Your task to perform on an android device: add a label to a message in the gmail app Image 0: 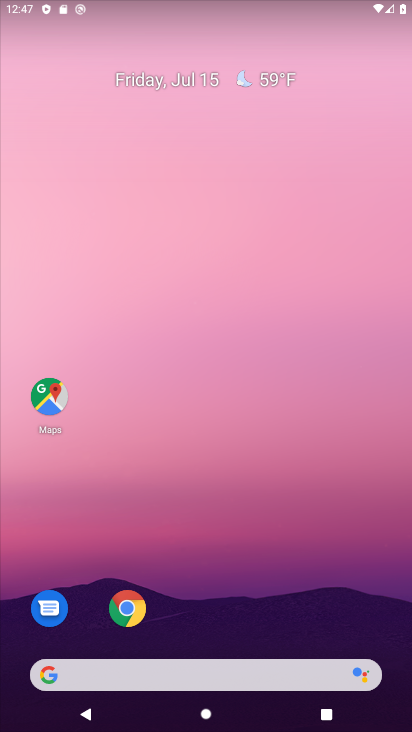
Step 0: drag from (198, 676) to (170, 113)
Your task to perform on an android device: add a label to a message in the gmail app Image 1: 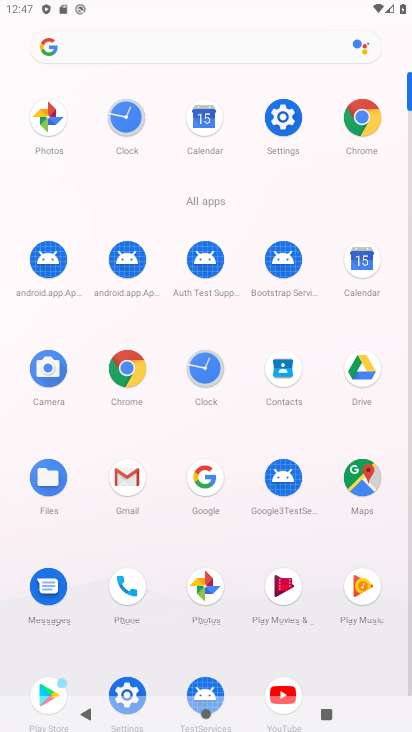
Step 1: click (130, 478)
Your task to perform on an android device: add a label to a message in the gmail app Image 2: 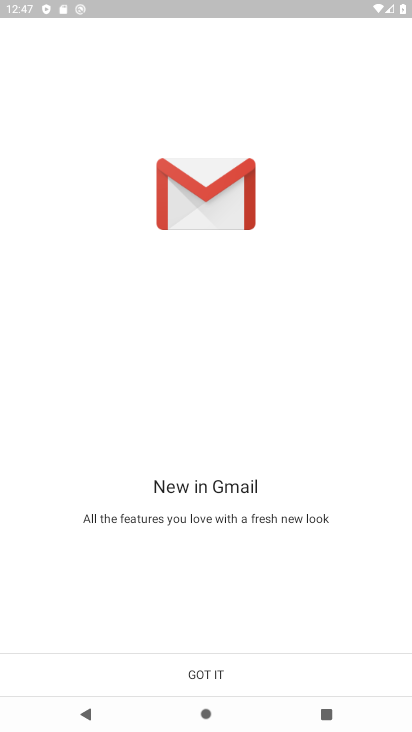
Step 2: click (206, 683)
Your task to perform on an android device: add a label to a message in the gmail app Image 3: 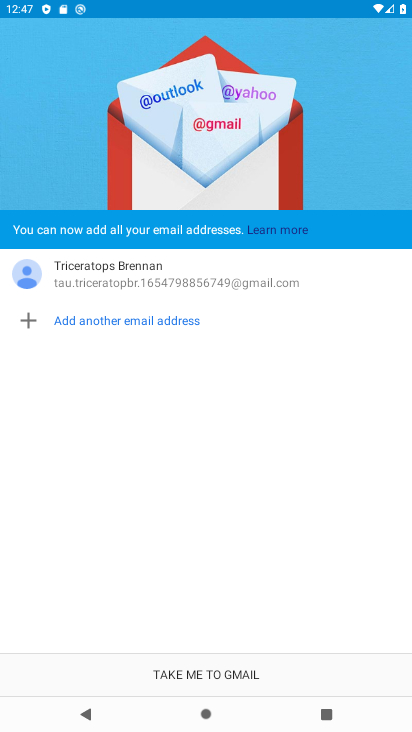
Step 3: click (171, 670)
Your task to perform on an android device: add a label to a message in the gmail app Image 4: 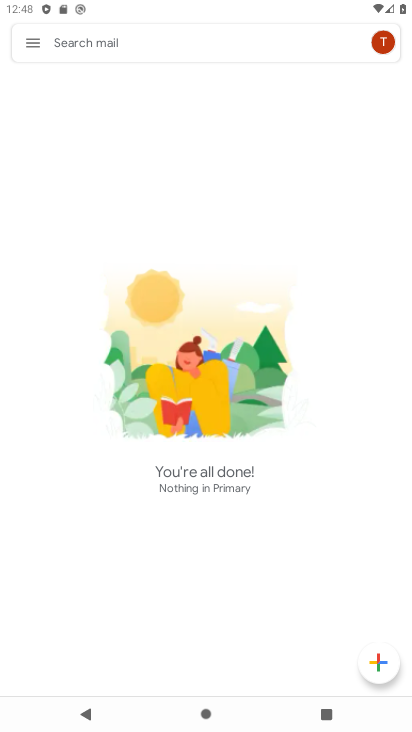
Step 4: task complete